Your task to perform on an android device: turn on improve location accuracy Image 0: 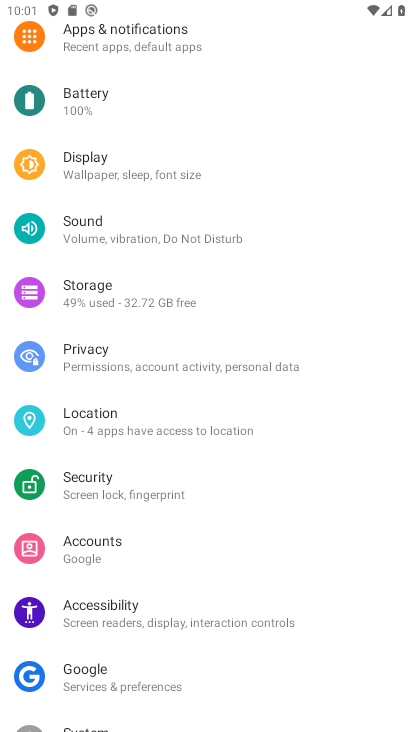
Step 0: click (97, 433)
Your task to perform on an android device: turn on improve location accuracy Image 1: 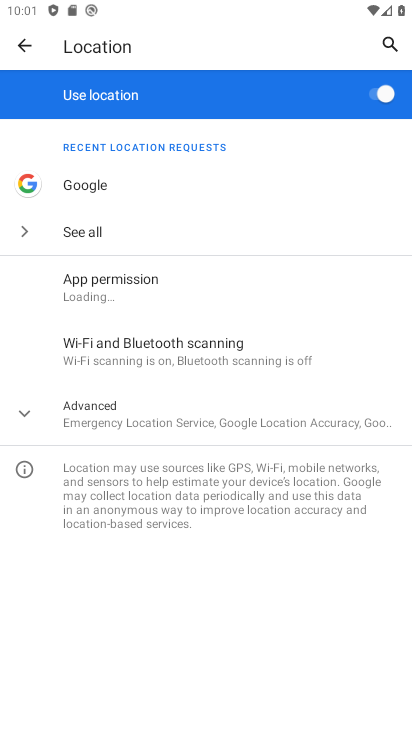
Step 1: click (24, 419)
Your task to perform on an android device: turn on improve location accuracy Image 2: 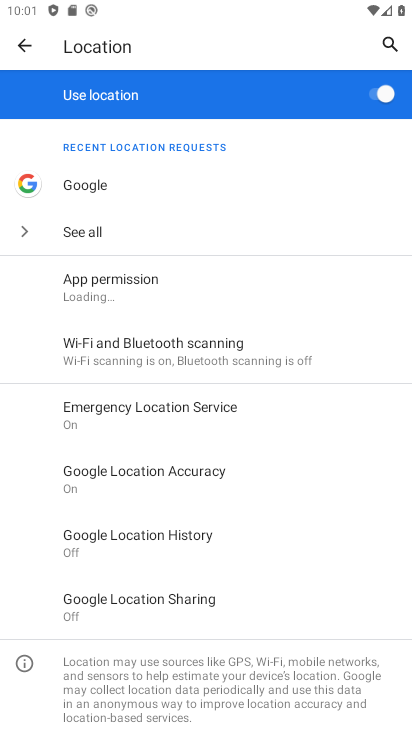
Step 2: click (146, 479)
Your task to perform on an android device: turn on improve location accuracy Image 3: 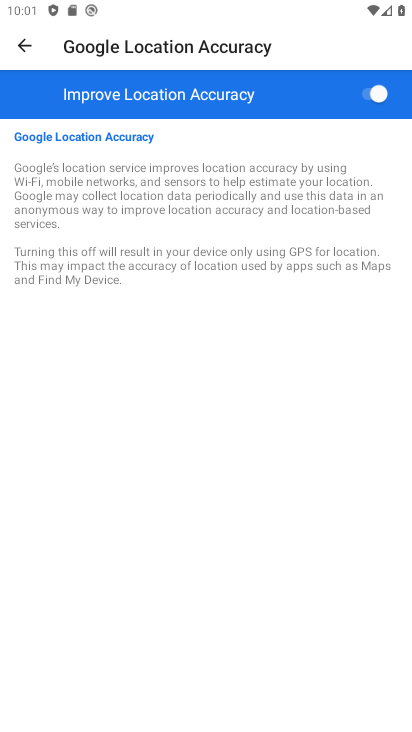
Step 3: task complete